Your task to perform on an android device: see sites visited before in the chrome app Image 0: 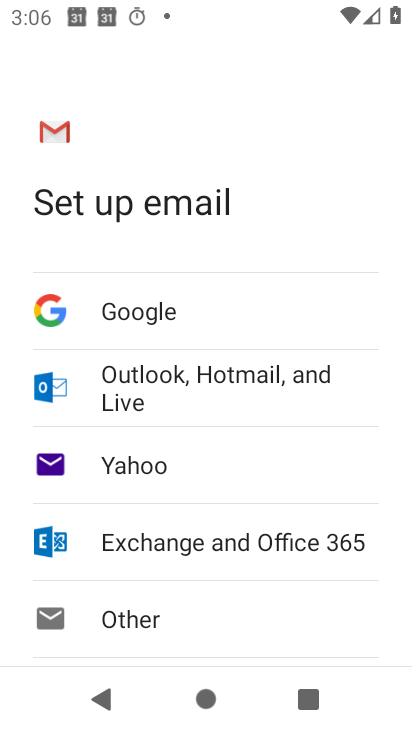
Step 0: press home button
Your task to perform on an android device: see sites visited before in the chrome app Image 1: 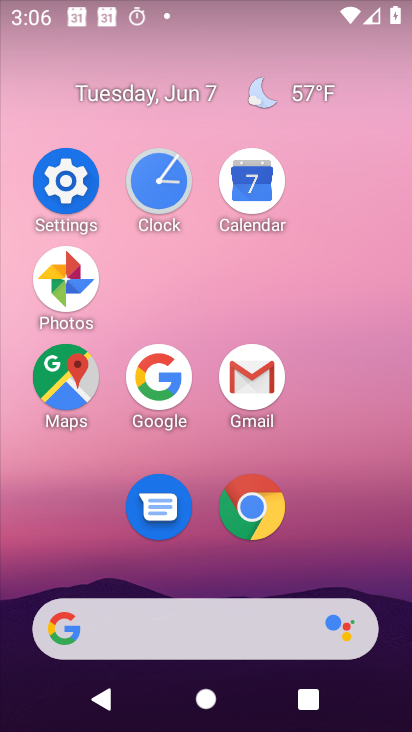
Step 1: click (246, 505)
Your task to perform on an android device: see sites visited before in the chrome app Image 2: 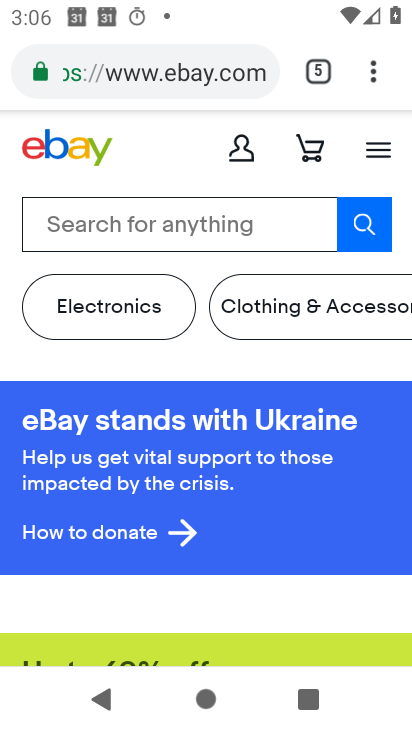
Step 2: click (366, 74)
Your task to perform on an android device: see sites visited before in the chrome app Image 3: 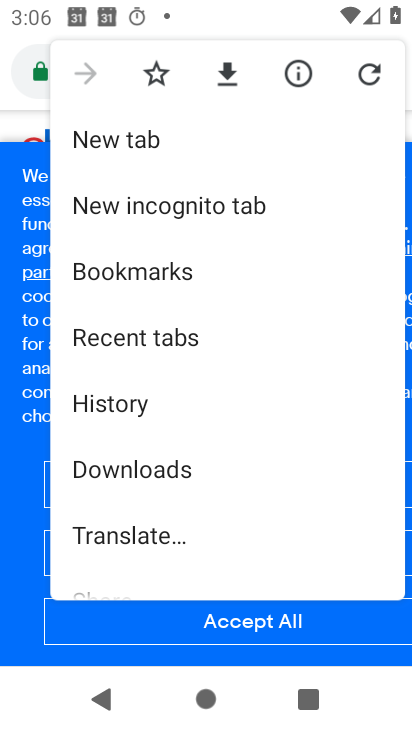
Step 3: click (210, 340)
Your task to perform on an android device: see sites visited before in the chrome app Image 4: 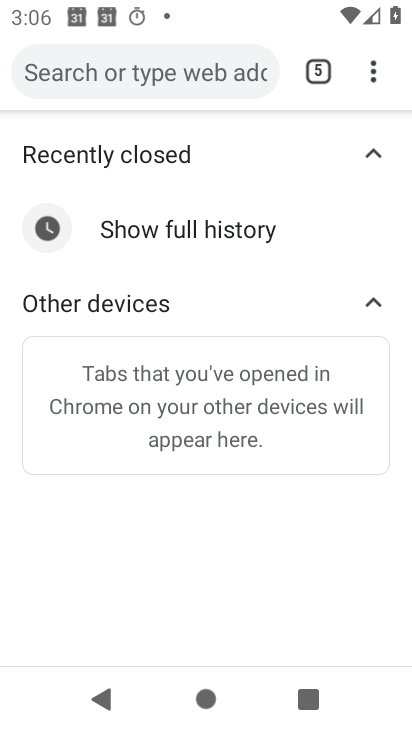
Step 4: click (121, 226)
Your task to perform on an android device: see sites visited before in the chrome app Image 5: 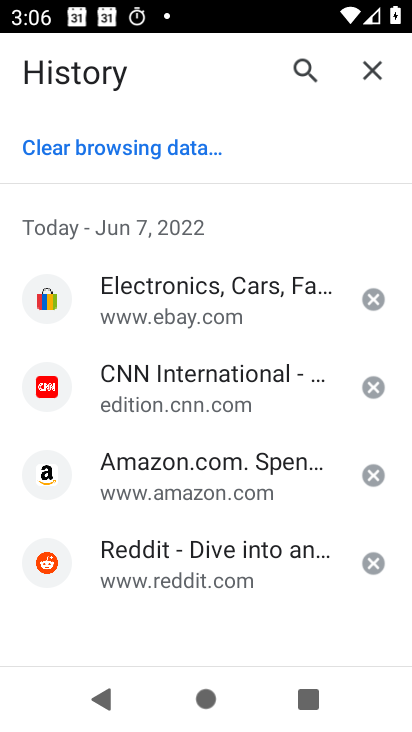
Step 5: task complete